Your task to perform on an android device: Show me popular videos on Youtube Image 0: 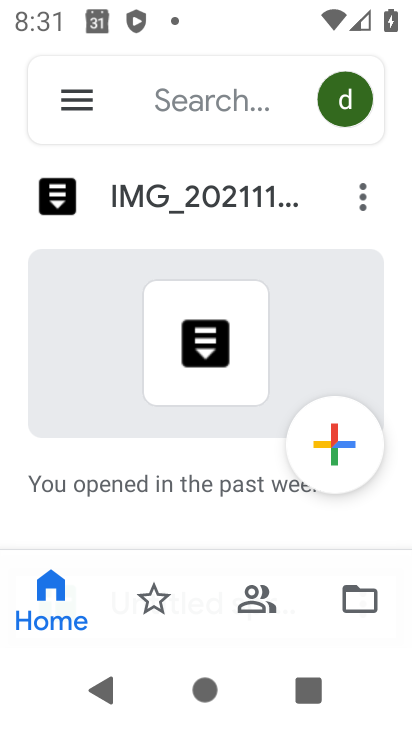
Step 0: press home button
Your task to perform on an android device: Show me popular videos on Youtube Image 1: 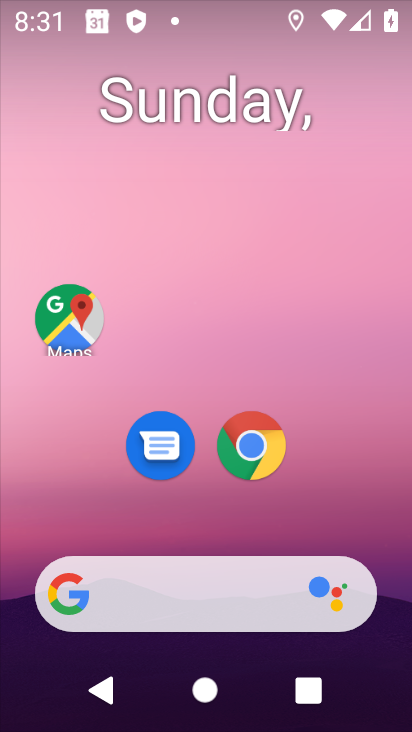
Step 1: drag from (354, 484) to (354, 68)
Your task to perform on an android device: Show me popular videos on Youtube Image 2: 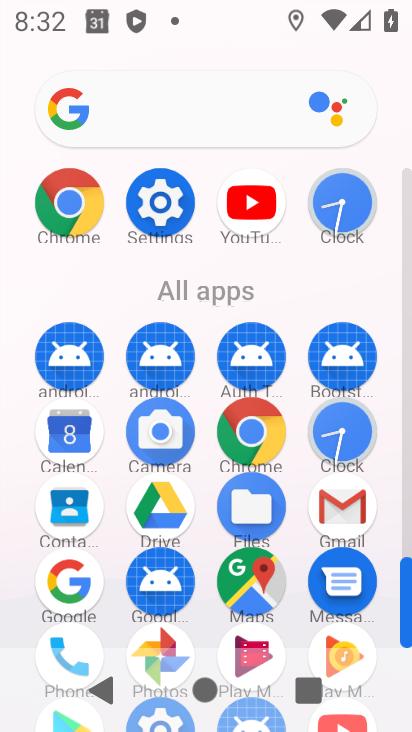
Step 2: click (269, 208)
Your task to perform on an android device: Show me popular videos on Youtube Image 3: 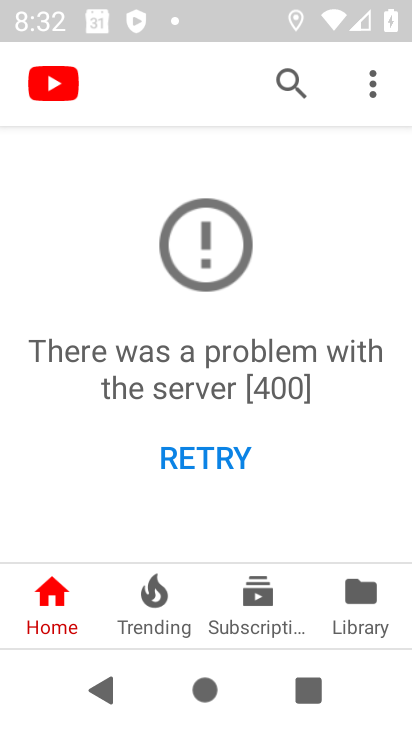
Step 3: task complete